Your task to perform on an android device: Show me productivity apps on the Play Store Image 0: 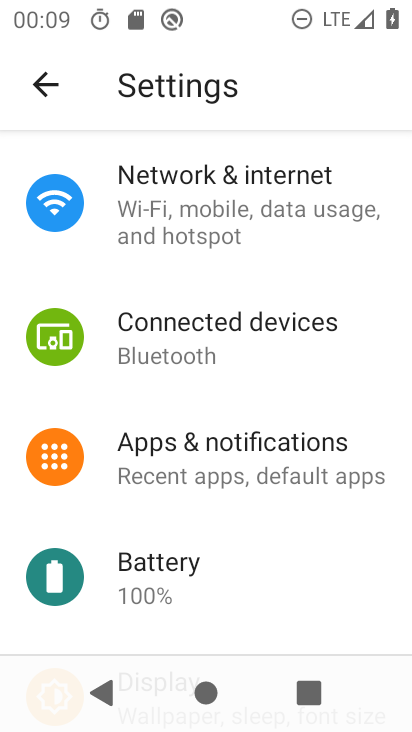
Step 0: press home button
Your task to perform on an android device: Show me productivity apps on the Play Store Image 1: 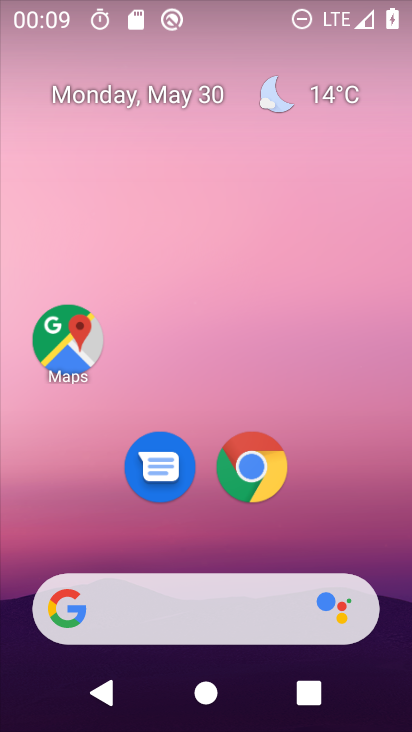
Step 1: drag from (195, 539) to (216, 146)
Your task to perform on an android device: Show me productivity apps on the Play Store Image 2: 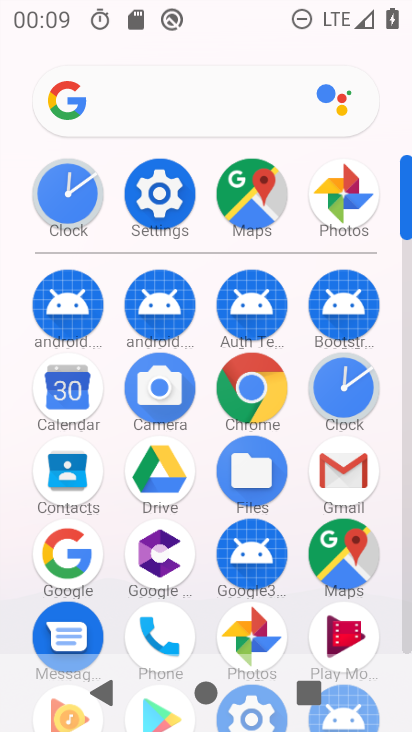
Step 2: drag from (94, 581) to (111, 272)
Your task to perform on an android device: Show me productivity apps on the Play Store Image 3: 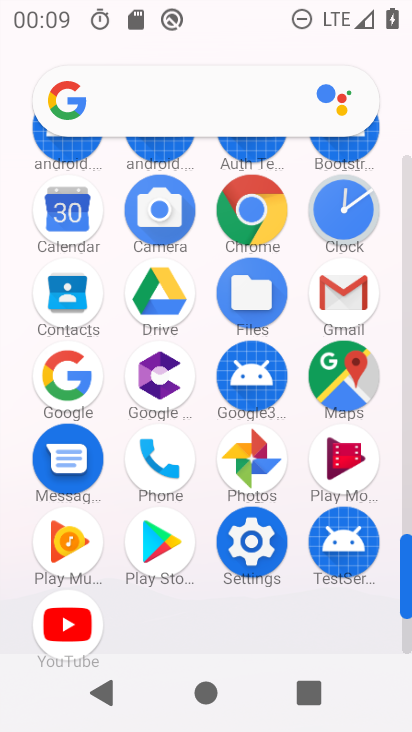
Step 3: click (143, 568)
Your task to perform on an android device: Show me productivity apps on the Play Store Image 4: 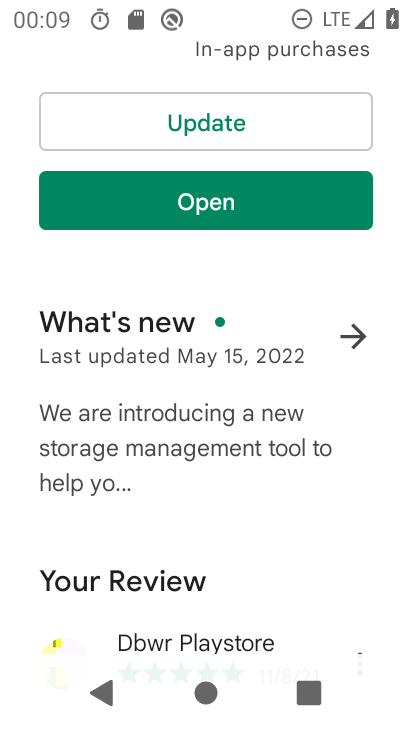
Step 4: click (155, 196)
Your task to perform on an android device: Show me productivity apps on the Play Store Image 5: 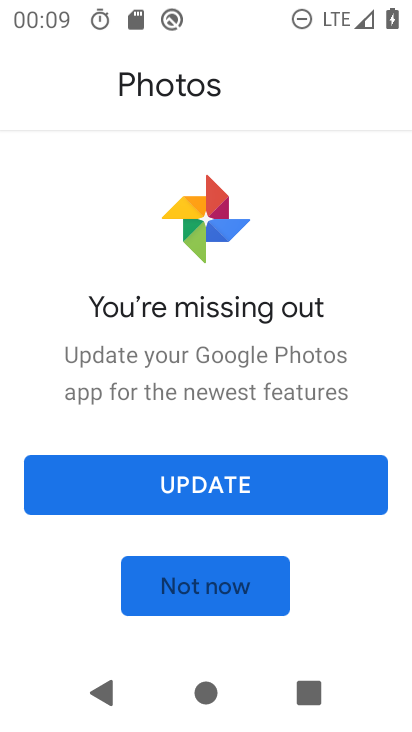
Step 5: click (209, 585)
Your task to perform on an android device: Show me productivity apps on the Play Store Image 6: 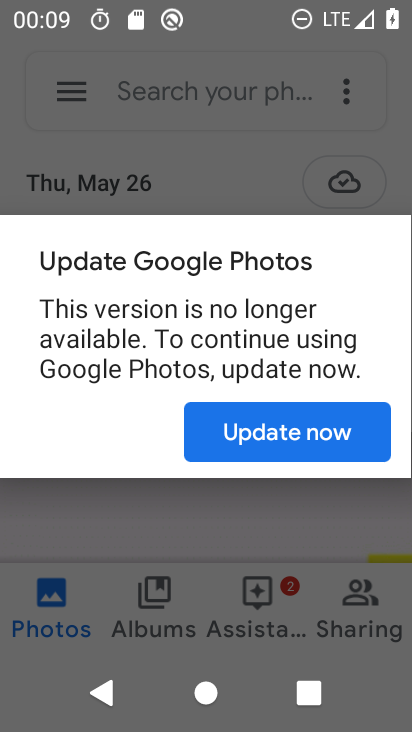
Step 6: click (281, 441)
Your task to perform on an android device: Show me productivity apps on the Play Store Image 7: 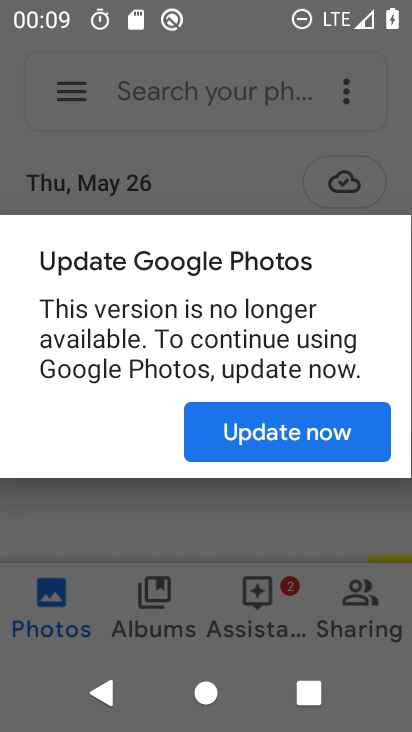
Step 7: click (262, 444)
Your task to perform on an android device: Show me productivity apps on the Play Store Image 8: 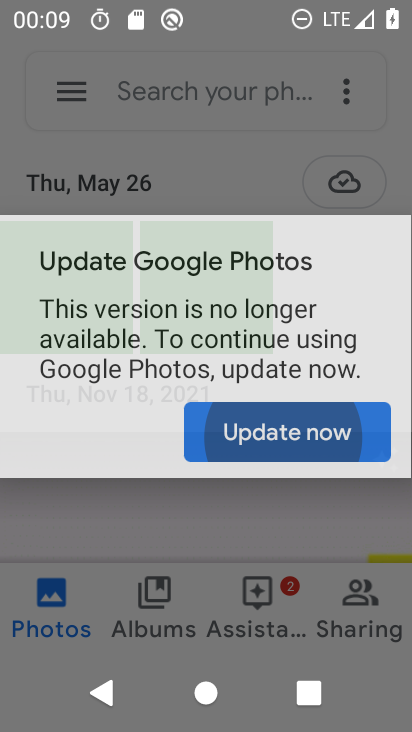
Step 8: click (259, 443)
Your task to perform on an android device: Show me productivity apps on the Play Store Image 9: 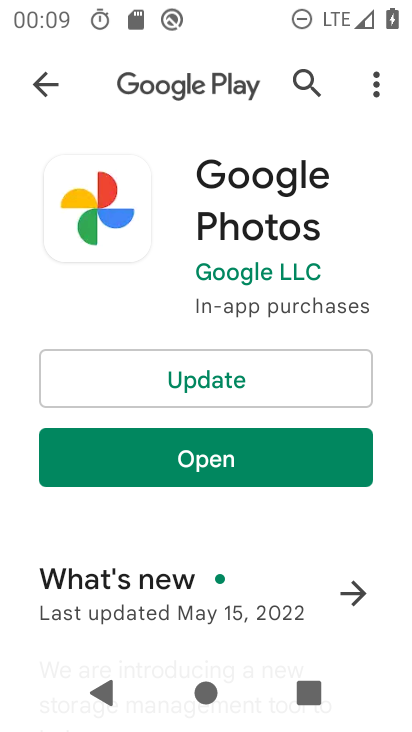
Step 9: click (259, 443)
Your task to perform on an android device: Show me productivity apps on the Play Store Image 10: 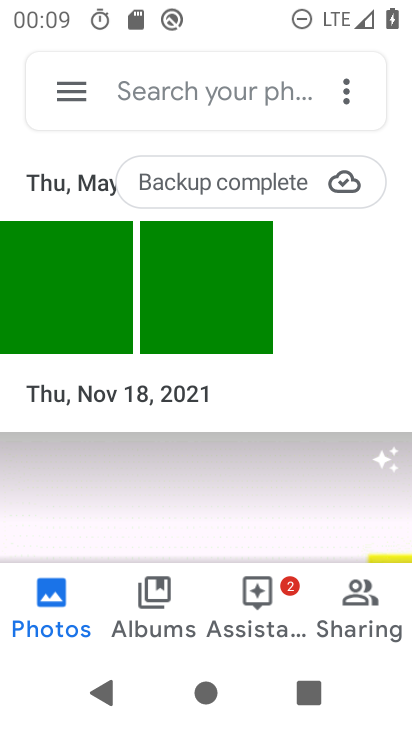
Step 10: press back button
Your task to perform on an android device: Show me productivity apps on the Play Store Image 11: 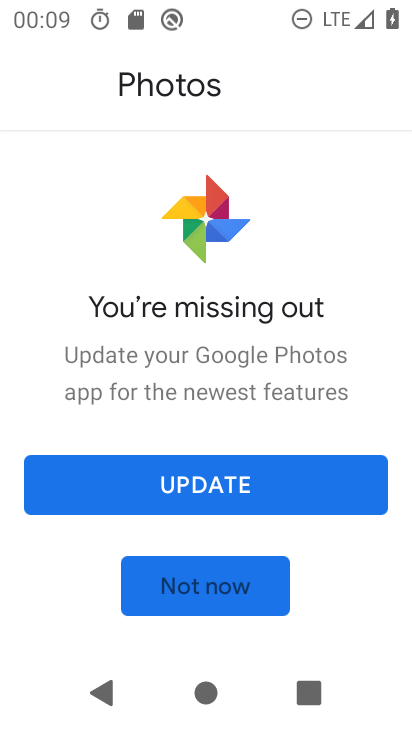
Step 11: press back button
Your task to perform on an android device: Show me productivity apps on the Play Store Image 12: 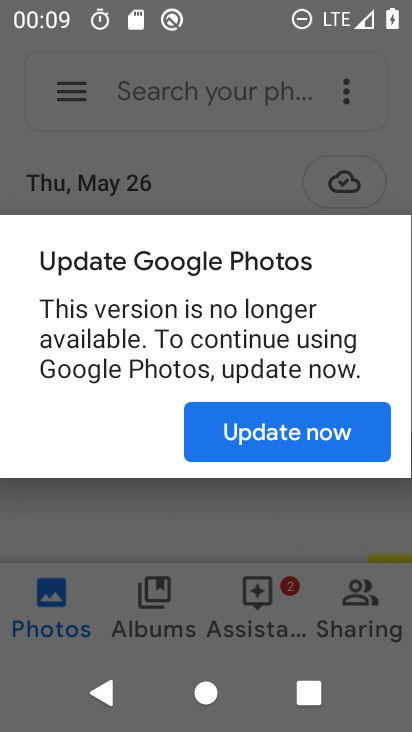
Step 12: press back button
Your task to perform on an android device: Show me productivity apps on the Play Store Image 13: 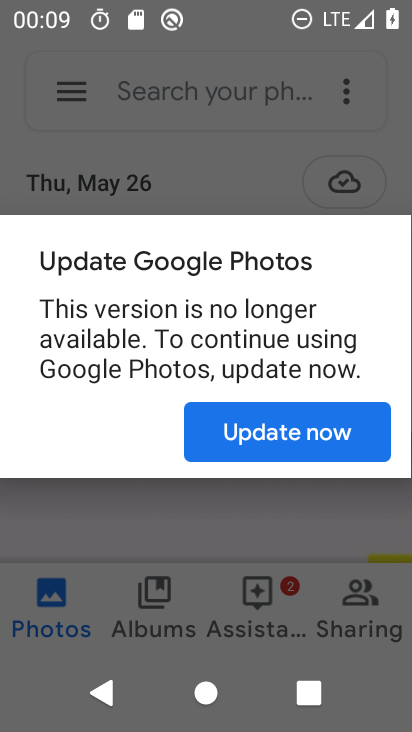
Step 13: press home button
Your task to perform on an android device: Show me productivity apps on the Play Store Image 14: 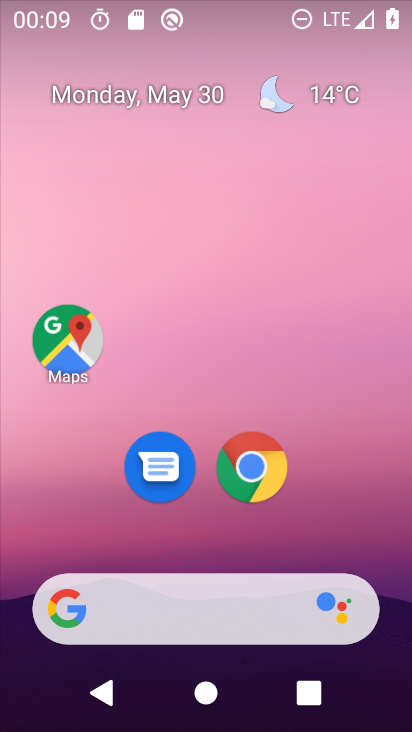
Step 14: drag from (171, 541) to (127, 98)
Your task to perform on an android device: Show me productivity apps on the Play Store Image 15: 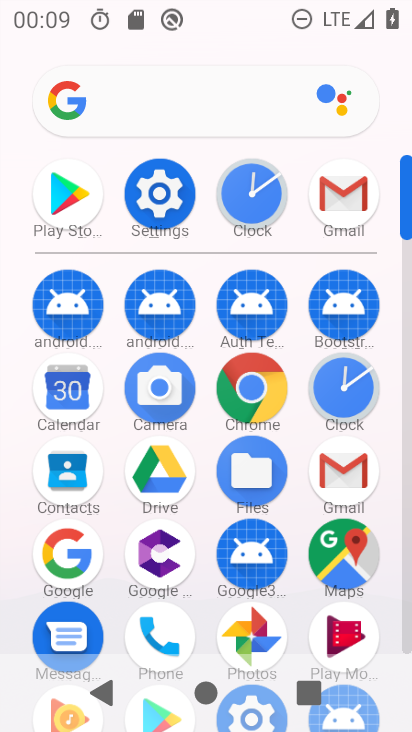
Step 15: click (66, 188)
Your task to perform on an android device: Show me productivity apps on the Play Store Image 16: 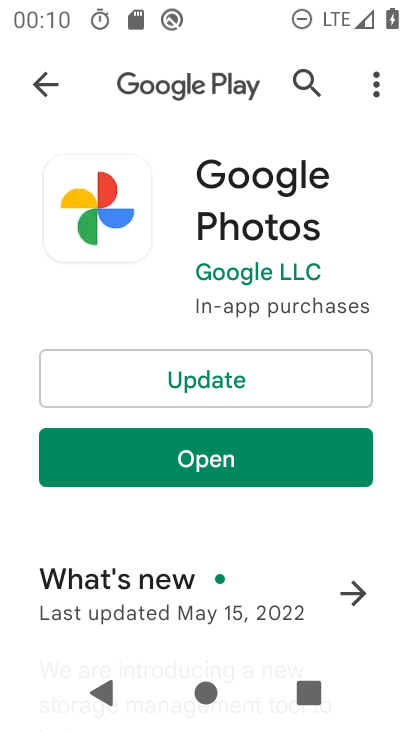
Step 16: click (41, 89)
Your task to perform on an android device: Show me productivity apps on the Play Store Image 17: 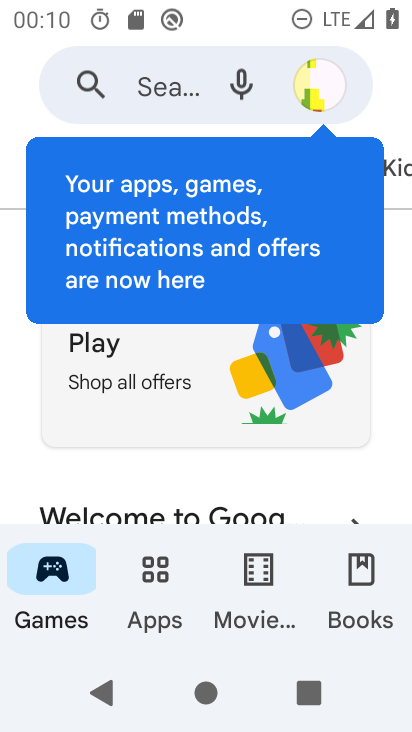
Step 17: click (165, 577)
Your task to perform on an android device: Show me productivity apps on the Play Store Image 18: 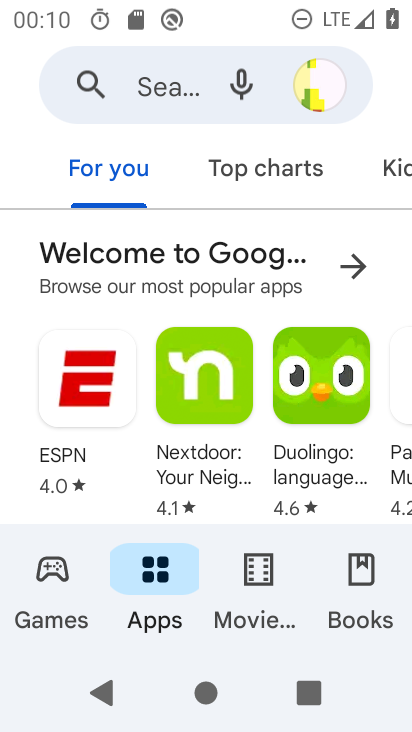
Step 18: drag from (267, 169) to (71, 172)
Your task to perform on an android device: Show me productivity apps on the Play Store Image 19: 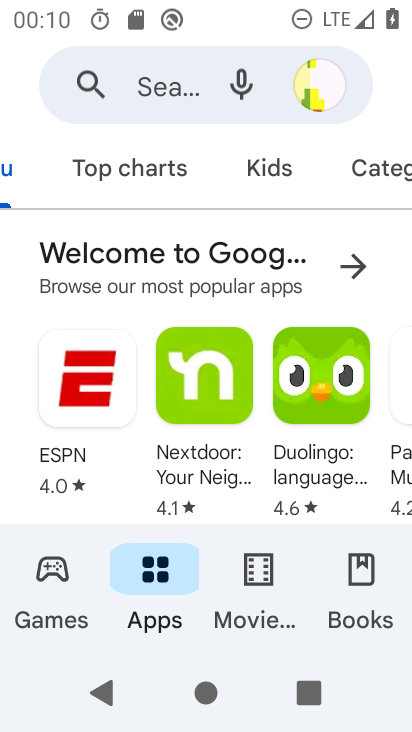
Step 19: drag from (255, 176) to (41, 187)
Your task to perform on an android device: Show me productivity apps on the Play Store Image 20: 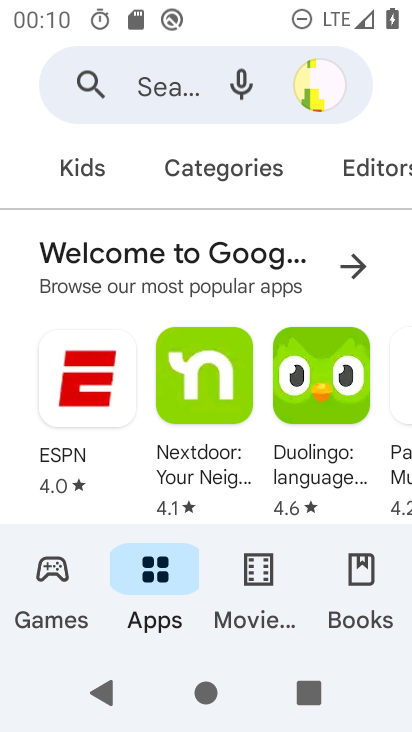
Step 20: click (171, 165)
Your task to perform on an android device: Show me productivity apps on the Play Store Image 21: 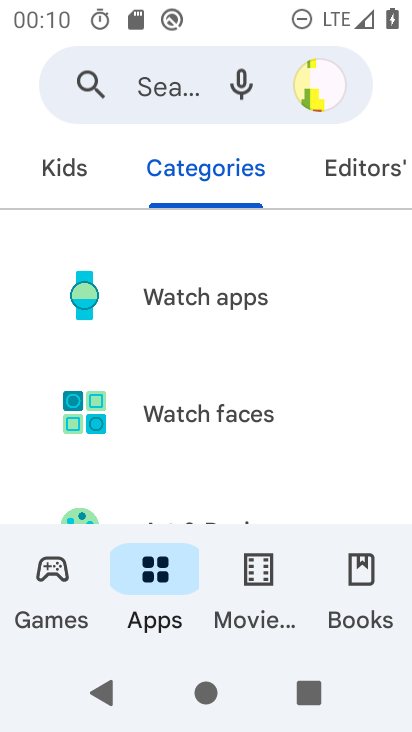
Step 21: drag from (182, 497) to (178, 246)
Your task to perform on an android device: Show me productivity apps on the Play Store Image 22: 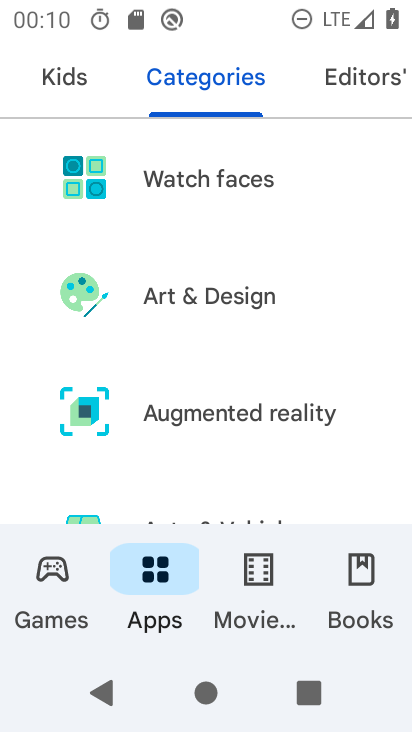
Step 22: drag from (204, 468) to (208, 217)
Your task to perform on an android device: Show me productivity apps on the Play Store Image 23: 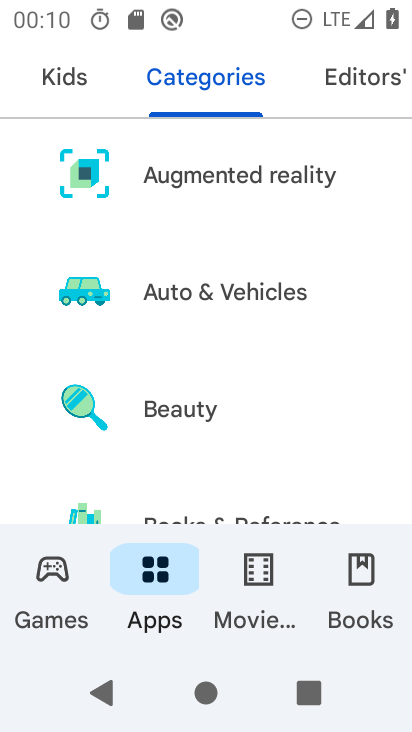
Step 23: drag from (203, 460) to (213, 167)
Your task to perform on an android device: Show me productivity apps on the Play Store Image 24: 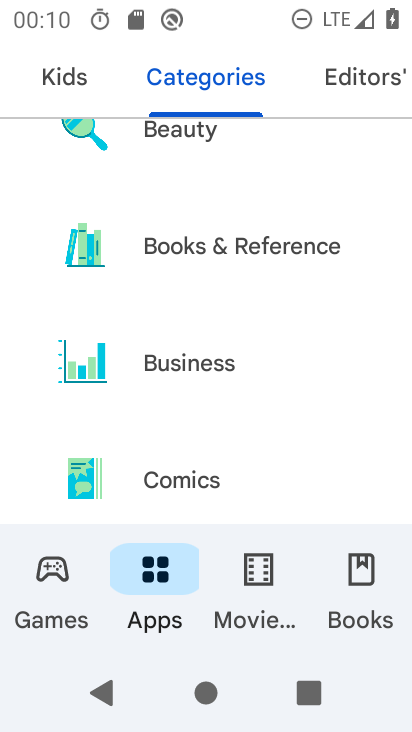
Step 24: drag from (215, 400) to (211, 193)
Your task to perform on an android device: Show me productivity apps on the Play Store Image 25: 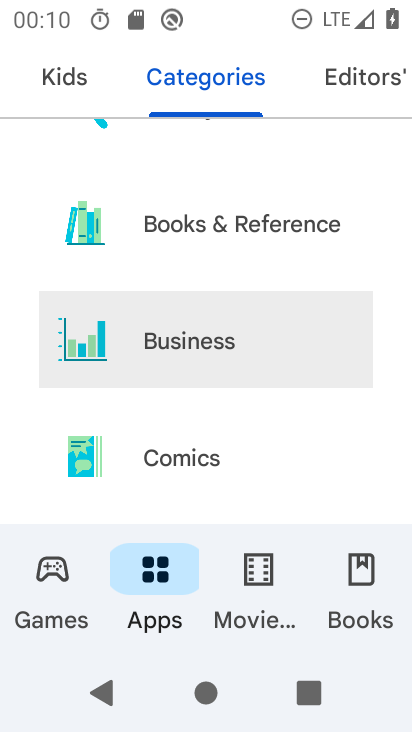
Step 25: drag from (203, 412) to (206, 237)
Your task to perform on an android device: Show me productivity apps on the Play Store Image 26: 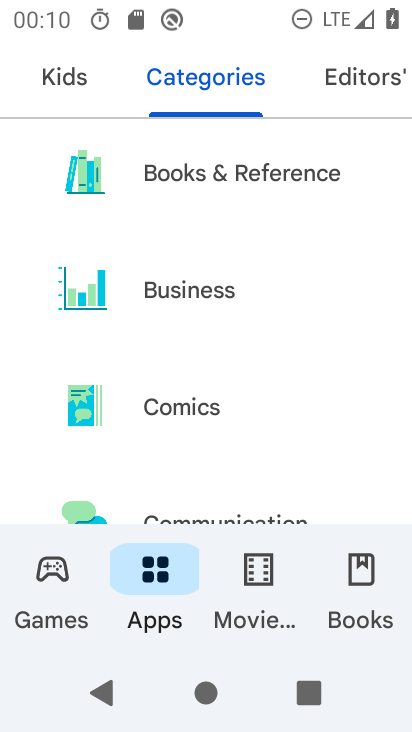
Step 26: drag from (206, 479) to (216, 199)
Your task to perform on an android device: Show me productivity apps on the Play Store Image 27: 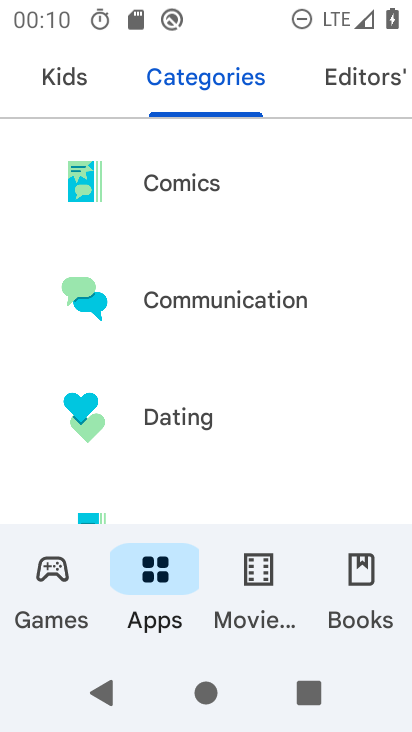
Step 27: drag from (210, 413) to (203, 182)
Your task to perform on an android device: Show me productivity apps on the Play Store Image 28: 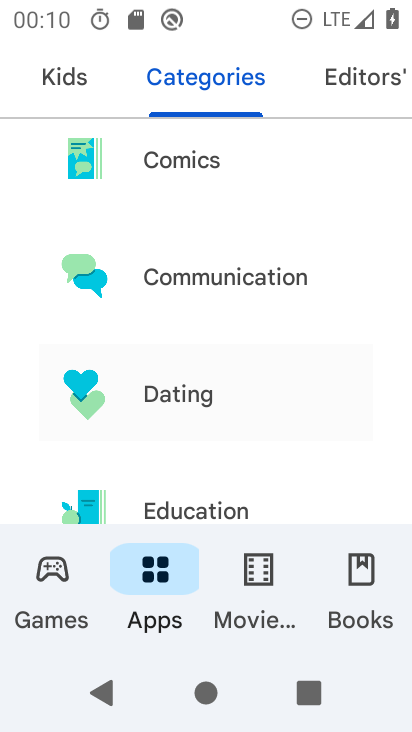
Step 28: drag from (183, 425) to (183, 127)
Your task to perform on an android device: Show me productivity apps on the Play Store Image 29: 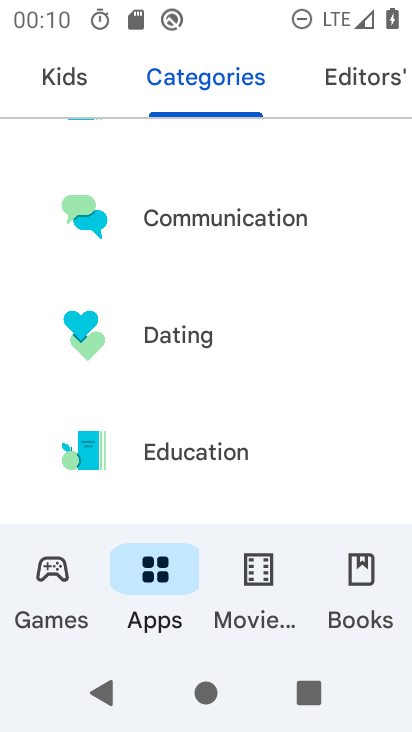
Step 29: drag from (199, 440) to (199, 211)
Your task to perform on an android device: Show me productivity apps on the Play Store Image 30: 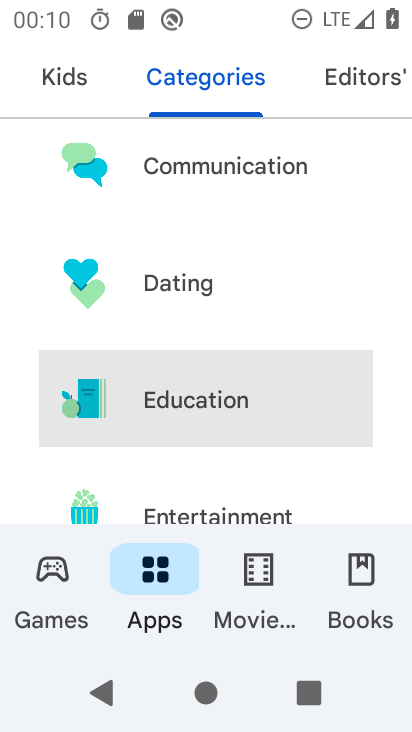
Step 30: drag from (197, 451) to (196, 173)
Your task to perform on an android device: Show me productivity apps on the Play Store Image 31: 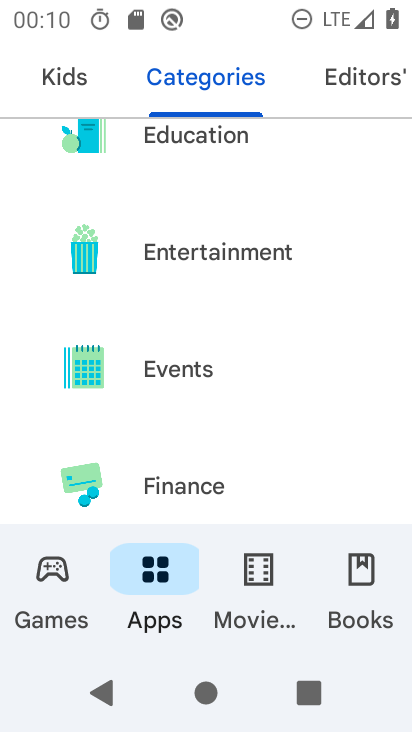
Step 31: drag from (199, 433) to (198, 228)
Your task to perform on an android device: Show me productivity apps on the Play Store Image 32: 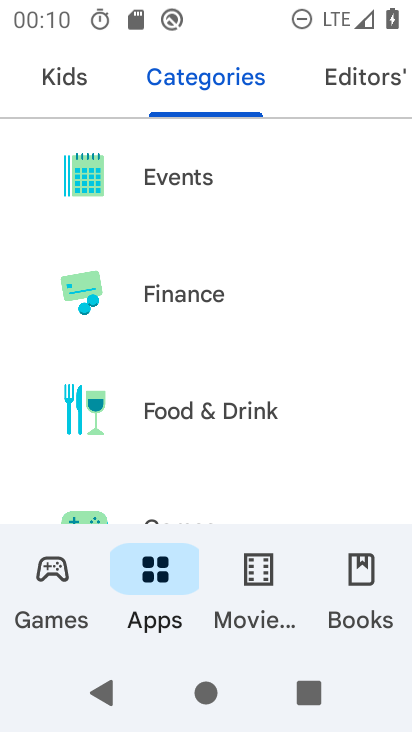
Step 32: drag from (215, 440) to (229, 172)
Your task to perform on an android device: Show me productivity apps on the Play Store Image 33: 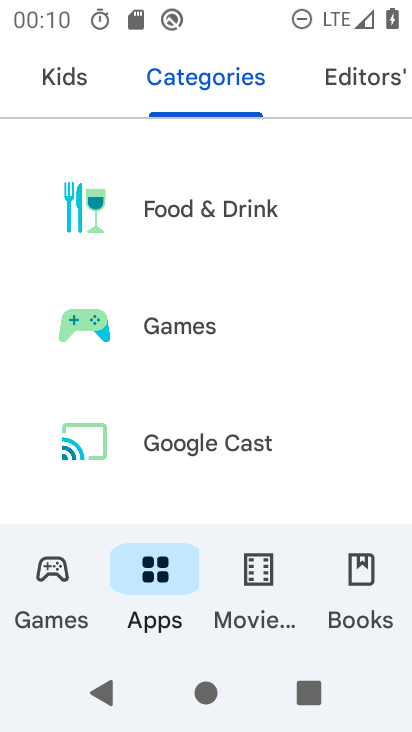
Step 33: drag from (238, 427) to (255, 207)
Your task to perform on an android device: Show me productivity apps on the Play Store Image 34: 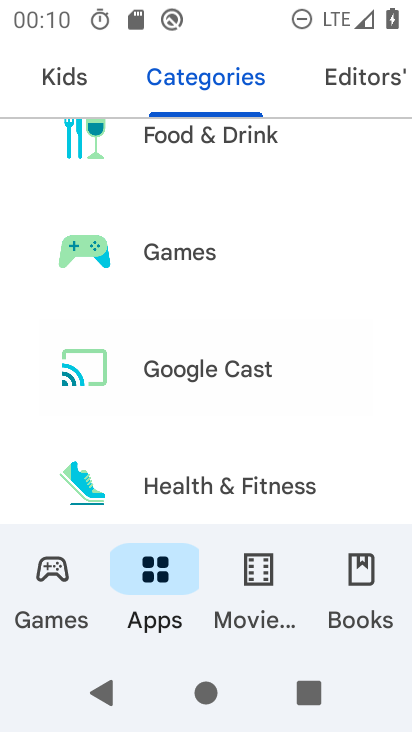
Step 34: drag from (230, 446) to (231, 213)
Your task to perform on an android device: Show me productivity apps on the Play Store Image 35: 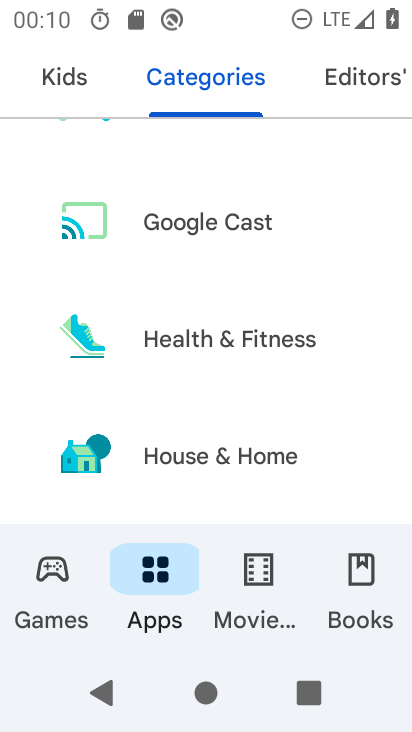
Step 35: drag from (196, 443) to (138, 203)
Your task to perform on an android device: Show me productivity apps on the Play Store Image 36: 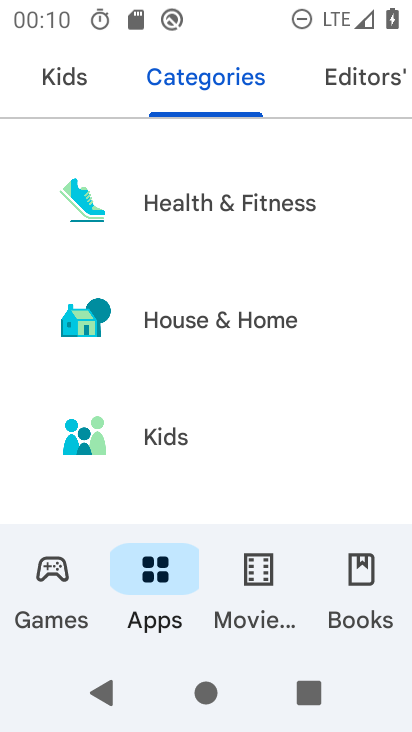
Step 36: drag from (206, 362) to (204, 191)
Your task to perform on an android device: Show me productivity apps on the Play Store Image 37: 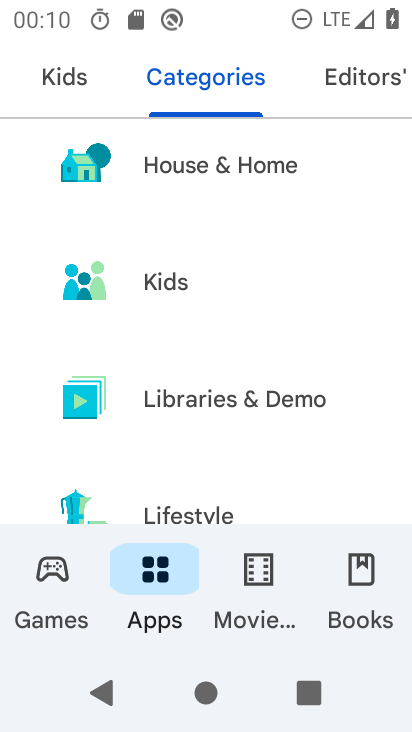
Step 37: drag from (215, 406) to (222, 169)
Your task to perform on an android device: Show me productivity apps on the Play Store Image 38: 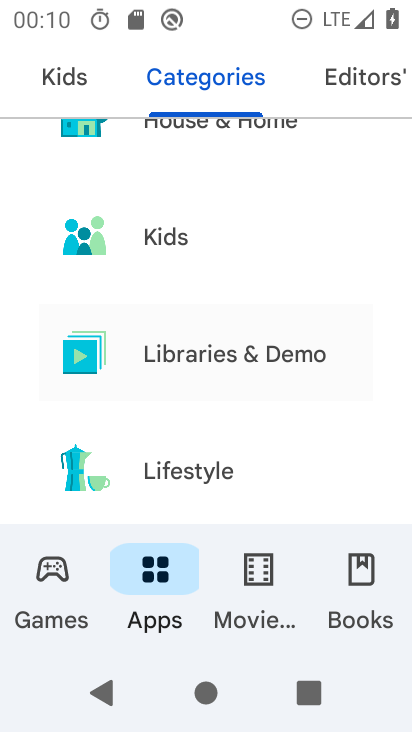
Step 38: drag from (222, 457) to (224, 143)
Your task to perform on an android device: Show me productivity apps on the Play Store Image 39: 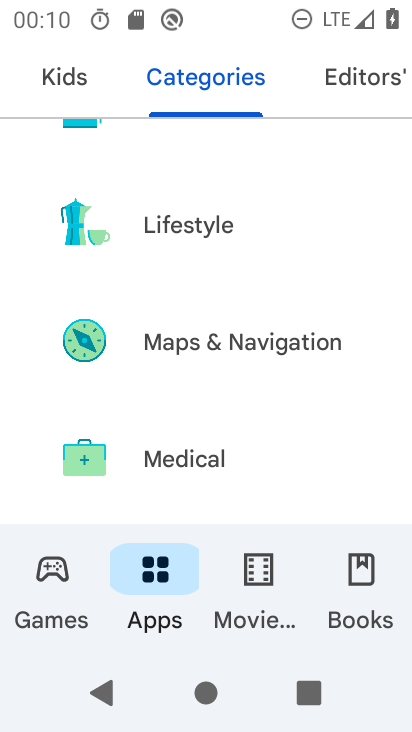
Step 39: drag from (227, 482) to (234, 242)
Your task to perform on an android device: Show me productivity apps on the Play Store Image 40: 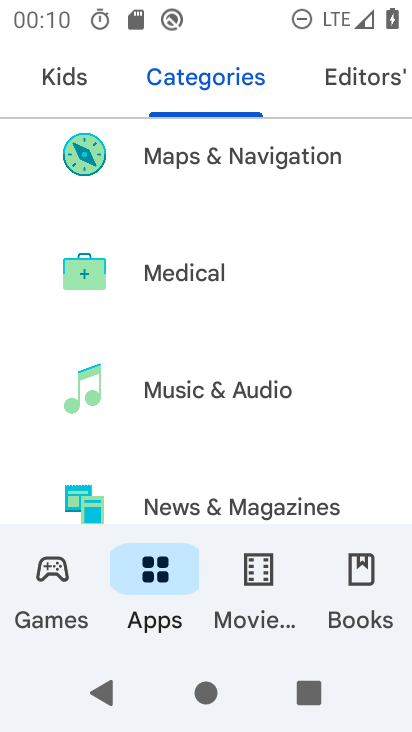
Step 40: drag from (234, 349) to (233, 179)
Your task to perform on an android device: Show me productivity apps on the Play Store Image 41: 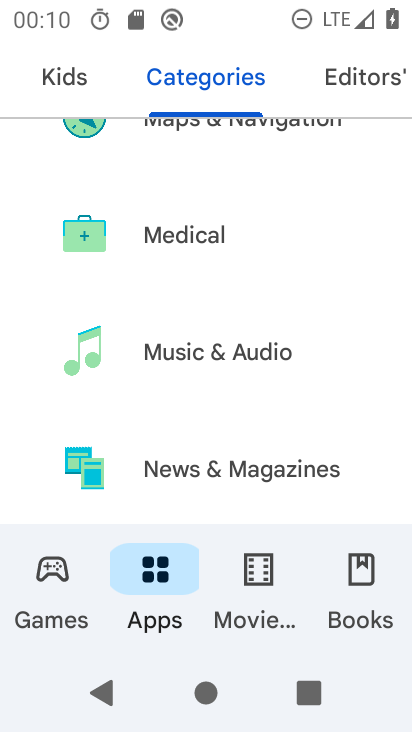
Step 41: drag from (242, 452) to (252, 205)
Your task to perform on an android device: Show me productivity apps on the Play Store Image 42: 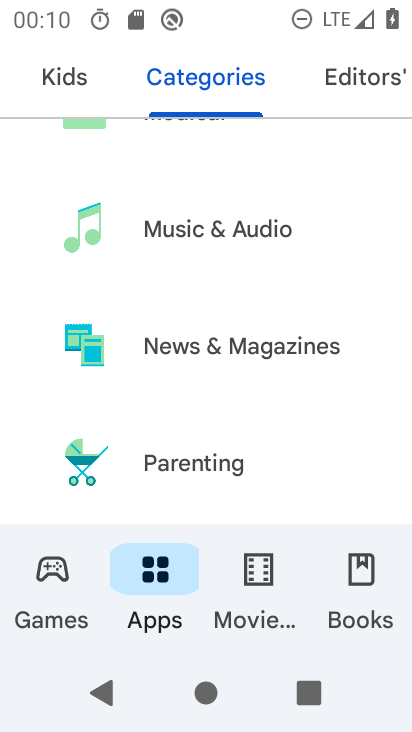
Step 42: drag from (252, 442) to (252, 192)
Your task to perform on an android device: Show me productivity apps on the Play Store Image 43: 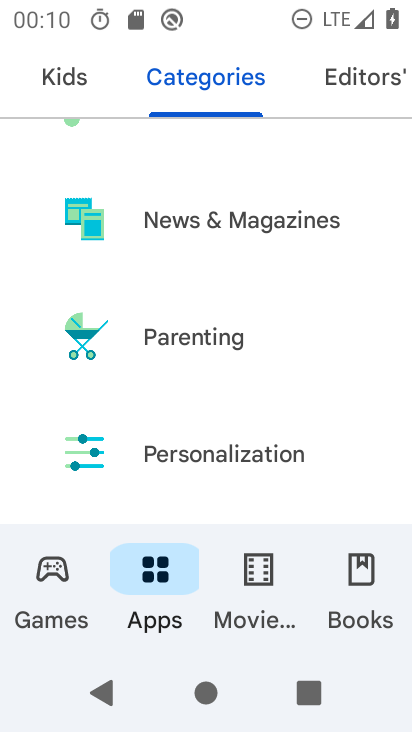
Step 43: drag from (259, 399) to (259, 158)
Your task to perform on an android device: Show me productivity apps on the Play Store Image 44: 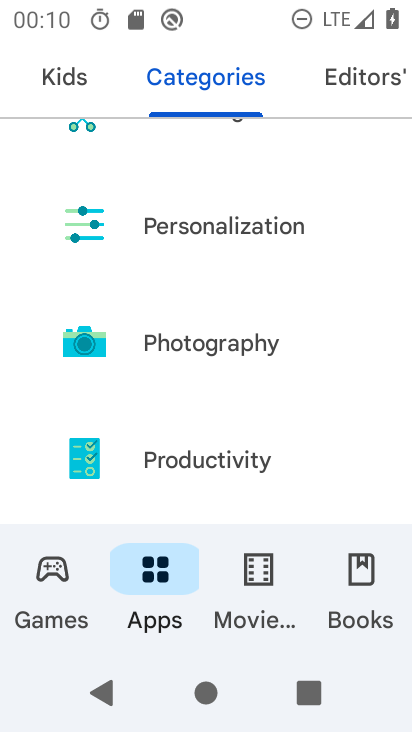
Step 44: drag from (259, 447) to (266, 231)
Your task to perform on an android device: Show me productivity apps on the Play Store Image 45: 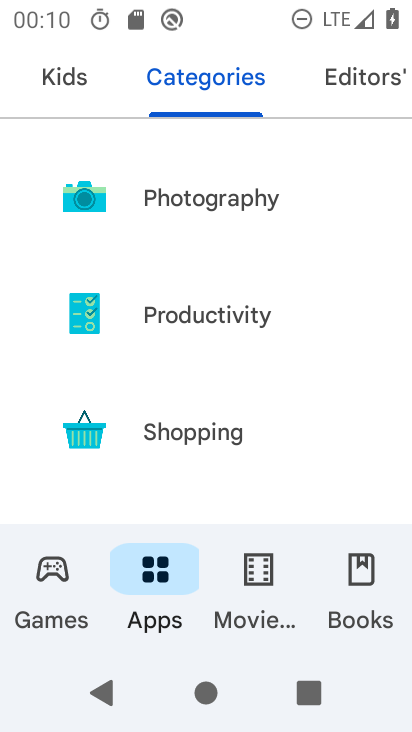
Step 45: click (213, 330)
Your task to perform on an android device: Show me productivity apps on the Play Store Image 46: 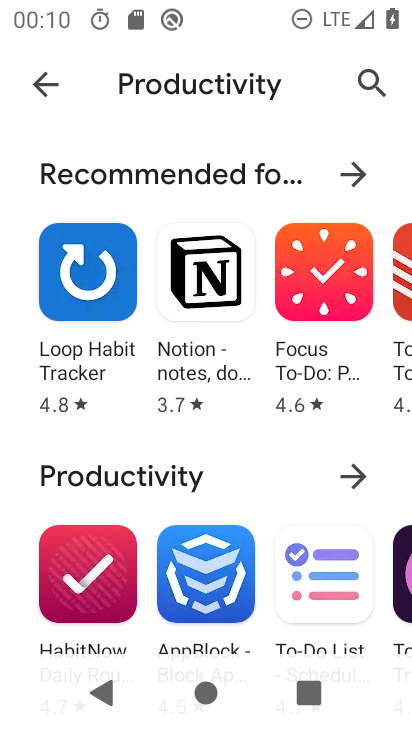
Step 46: task complete